Your task to perform on an android device: What's the weather going to be this weekend? Image 0: 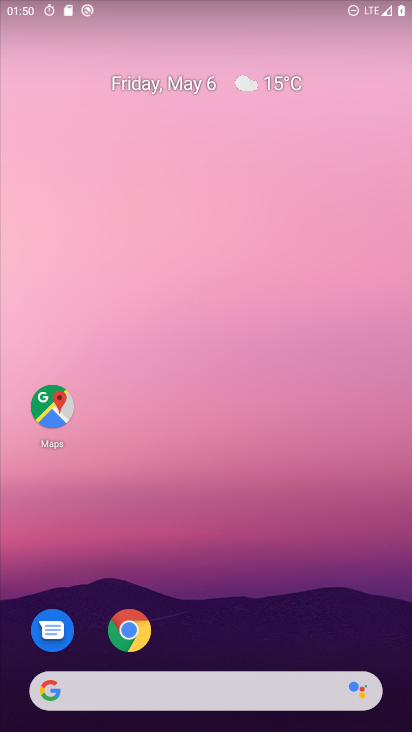
Step 0: drag from (274, 632) to (298, 147)
Your task to perform on an android device: What's the weather going to be this weekend? Image 1: 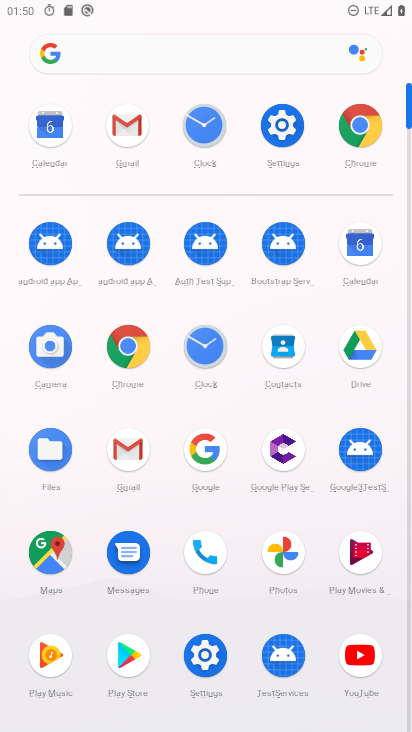
Step 1: press home button
Your task to perform on an android device: What's the weather going to be this weekend? Image 2: 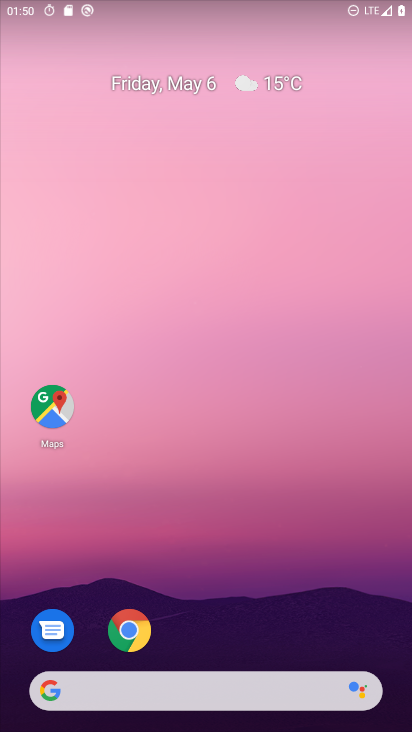
Step 2: click (295, 83)
Your task to perform on an android device: What's the weather going to be this weekend? Image 3: 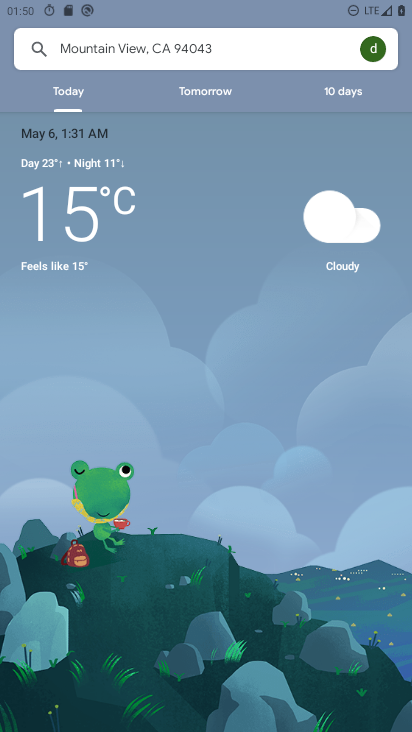
Step 3: click (353, 98)
Your task to perform on an android device: What's the weather going to be this weekend? Image 4: 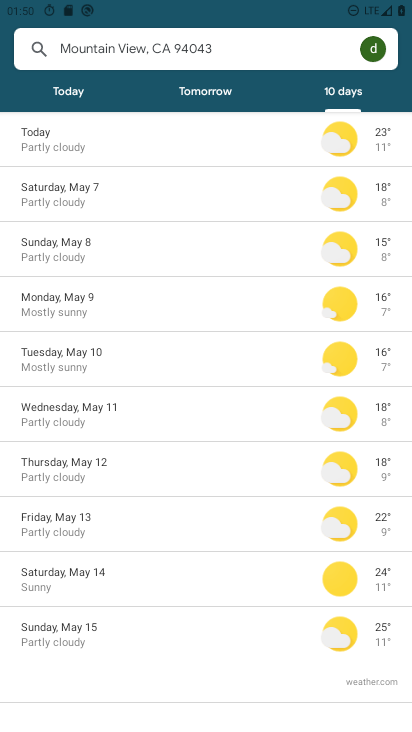
Step 4: task complete